Your task to perform on an android device: make emails show in primary in the gmail app Image 0: 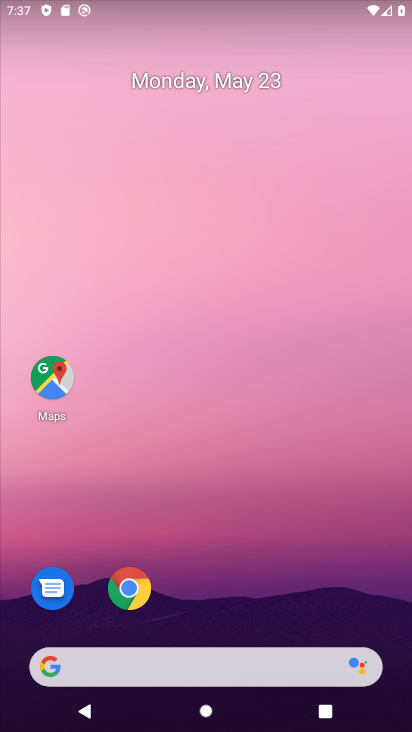
Step 0: drag from (403, 692) to (327, 3)
Your task to perform on an android device: make emails show in primary in the gmail app Image 1: 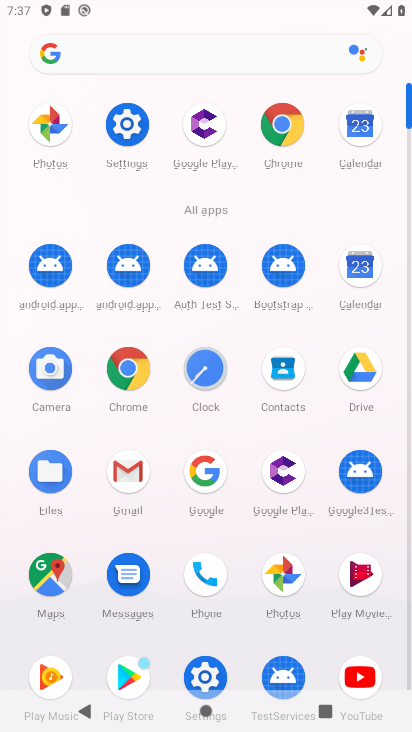
Step 1: click (121, 467)
Your task to perform on an android device: make emails show in primary in the gmail app Image 2: 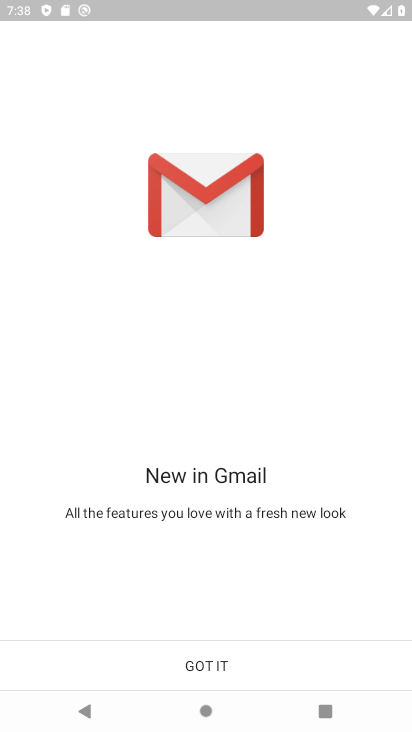
Step 2: click (227, 665)
Your task to perform on an android device: make emails show in primary in the gmail app Image 3: 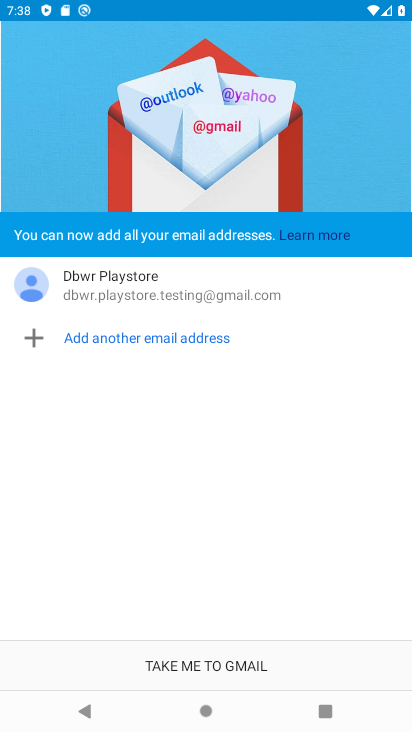
Step 3: click (221, 665)
Your task to perform on an android device: make emails show in primary in the gmail app Image 4: 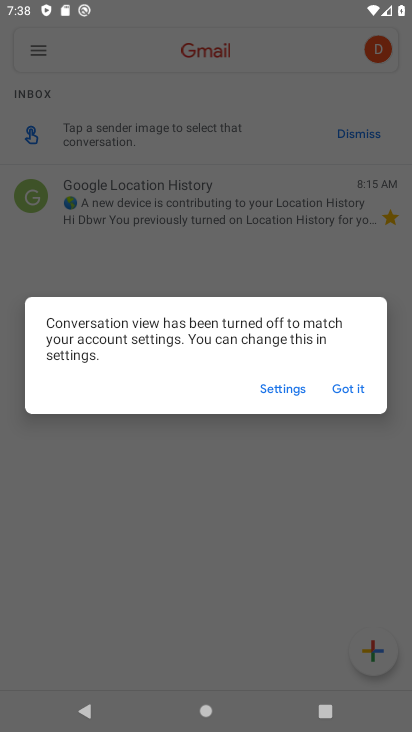
Step 4: click (348, 381)
Your task to perform on an android device: make emails show in primary in the gmail app Image 5: 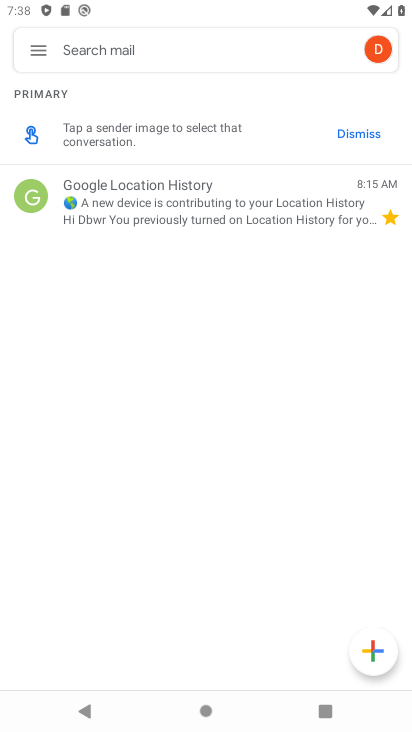
Step 5: click (38, 44)
Your task to perform on an android device: make emails show in primary in the gmail app Image 6: 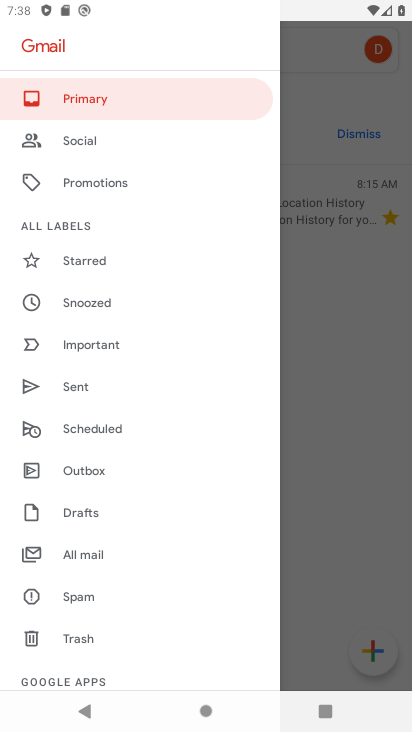
Step 6: drag from (158, 618) to (149, 336)
Your task to perform on an android device: make emails show in primary in the gmail app Image 7: 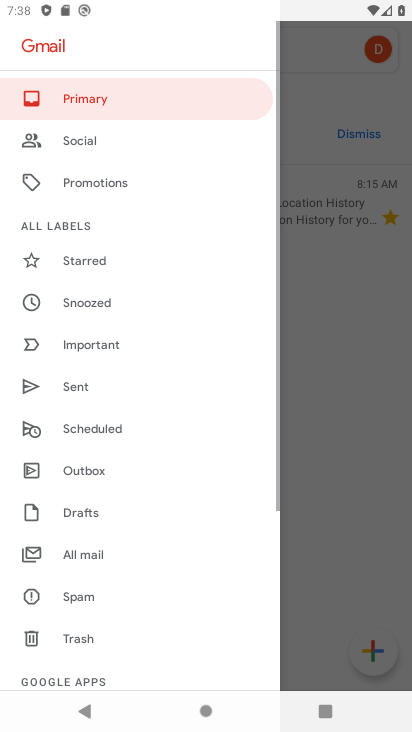
Step 7: drag from (224, 630) to (201, 230)
Your task to perform on an android device: make emails show in primary in the gmail app Image 8: 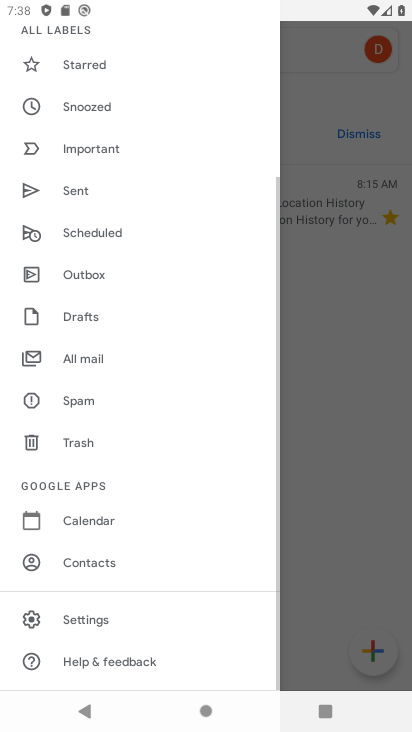
Step 8: click (67, 619)
Your task to perform on an android device: make emails show in primary in the gmail app Image 9: 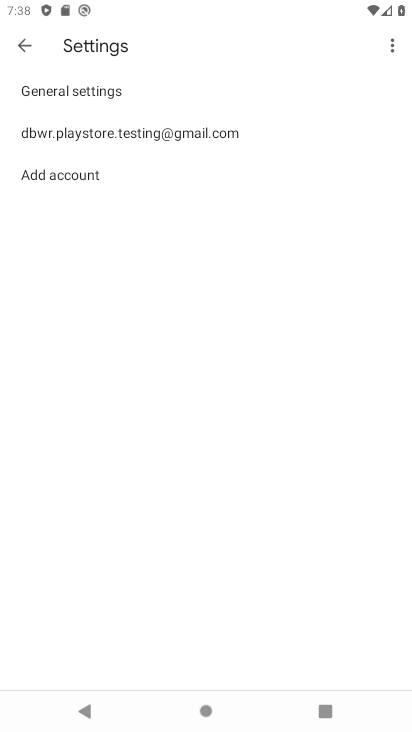
Step 9: click (58, 133)
Your task to perform on an android device: make emails show in primary in the gmail app Image 10: 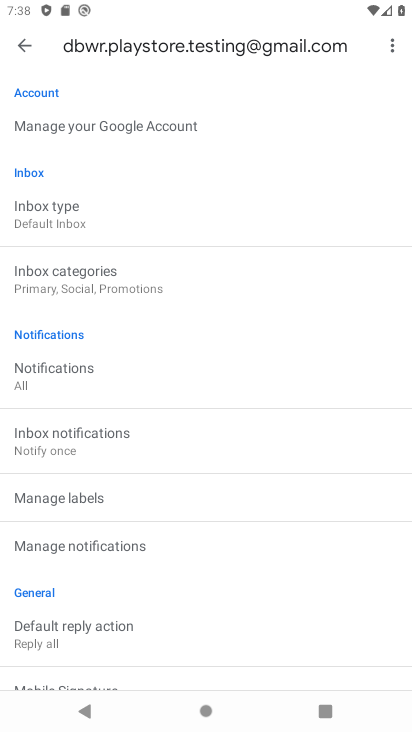
Step 10: click (34, 278)
Your task to perform on an android device: make emails show in primary in the gmail app Image 11: 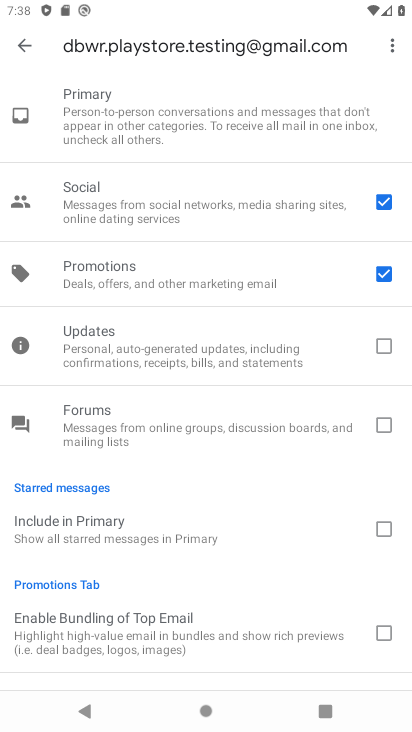
Step 11: click (390, 270)
Your task to perform on an android device: make emails show in primary in the gmail app Image 12: 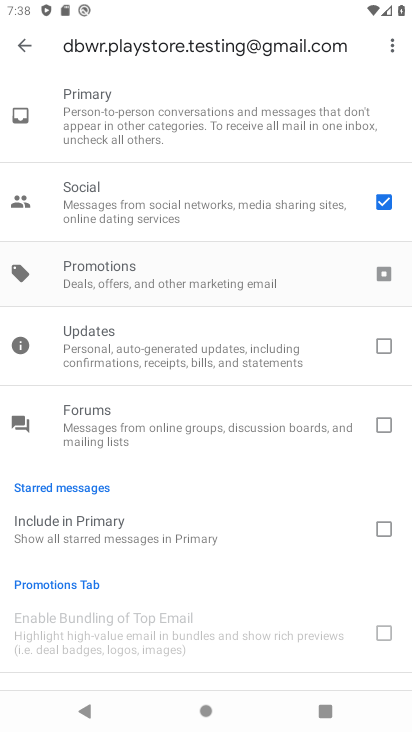
Step 12: click (379, 203)
Your task to perform on an android device: make emails show in primary in the gmail app Image 13: 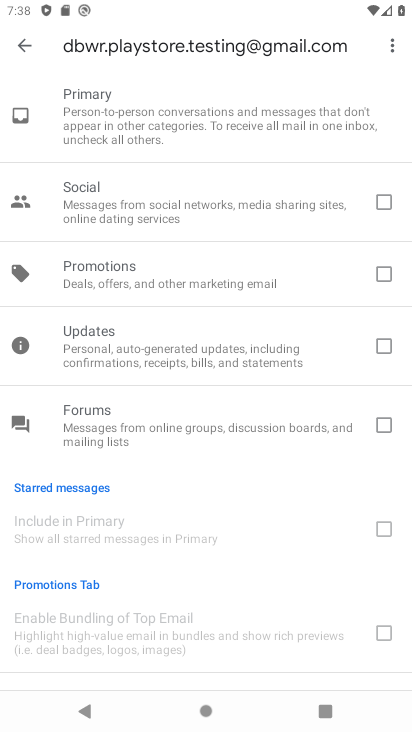
Step 13: click (27, 45)
Your task to perform on an android device: make emails show in primary in the gmail app Image 14: 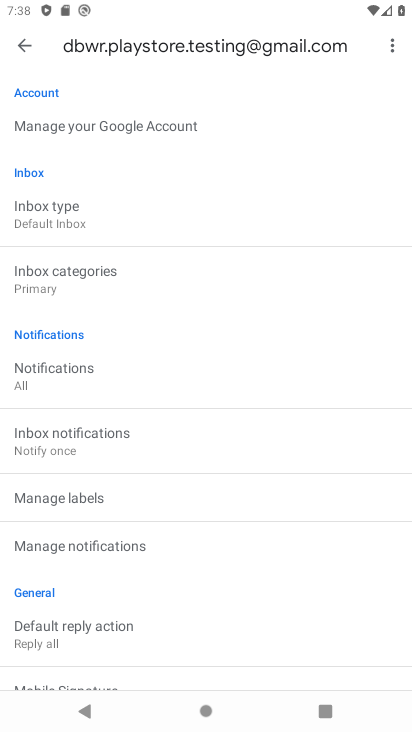
Step 14: task complete